Your task to perform on an android device: turn off sleep mode Image 0: 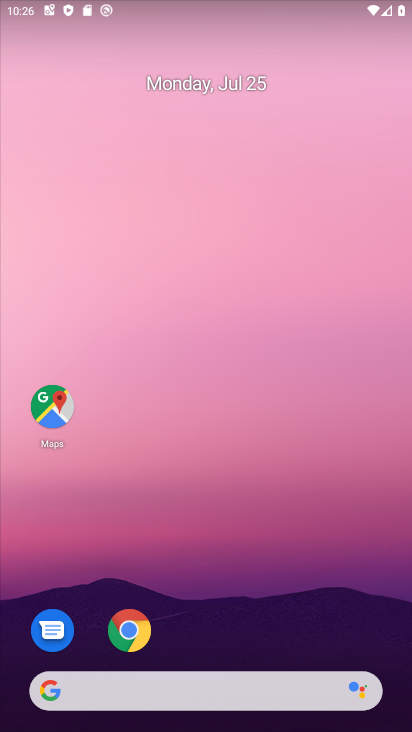
Step 0: drag from (345, 582) to (351, 84)
Your task to perform on an android device: turn off sleep mode Image 1: 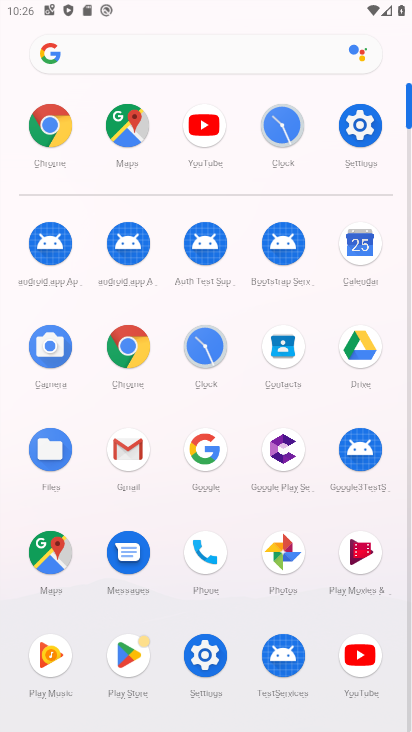
Step 1: click (361, 137)
Your task to perform on an android device: turn off sleep mode Image 2: 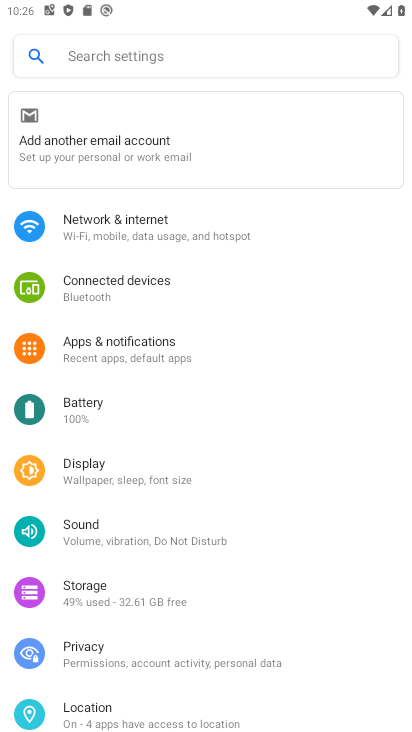
Step 2: drag from (336, 427) to (347, 332)
Your task to perform on an android device: turn off sleep mode Image 3: 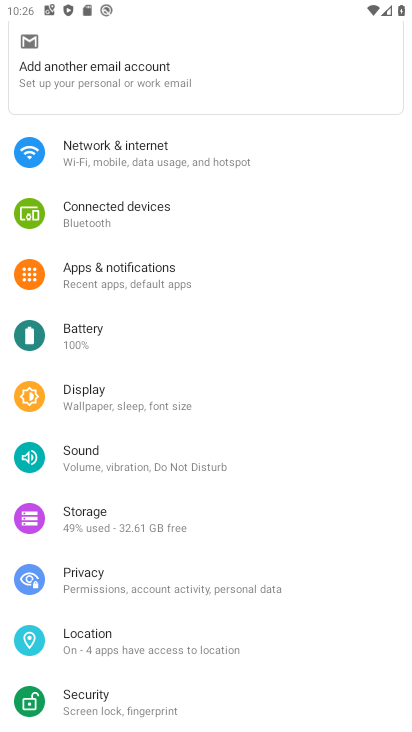
Step 3: drag from (350, 448) to (361, 368)
Your task to perform on an android device: turn off sleep mode Image 4: 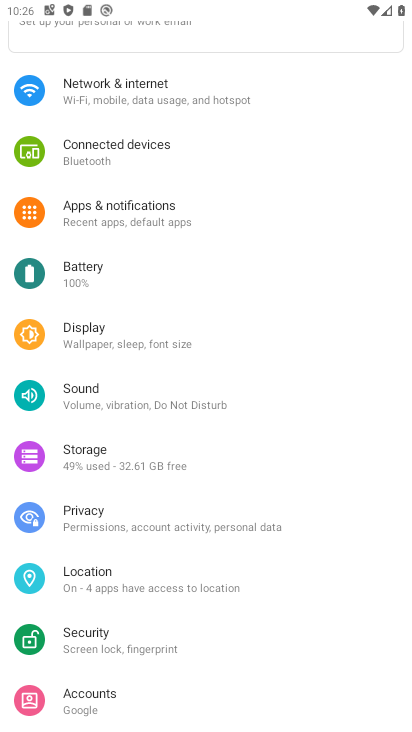
Step 4: drag from (357, 509) to (360, 388)
Your task to perform on an android device: turn off sleep mode Image 5: 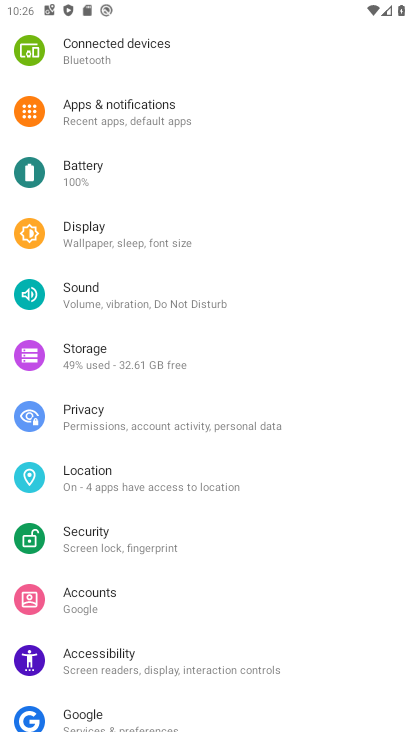
Step 5: drag from (346, 507) to (345, 395)
Your task to perform on an android device: turn off sleep mode Image 6: 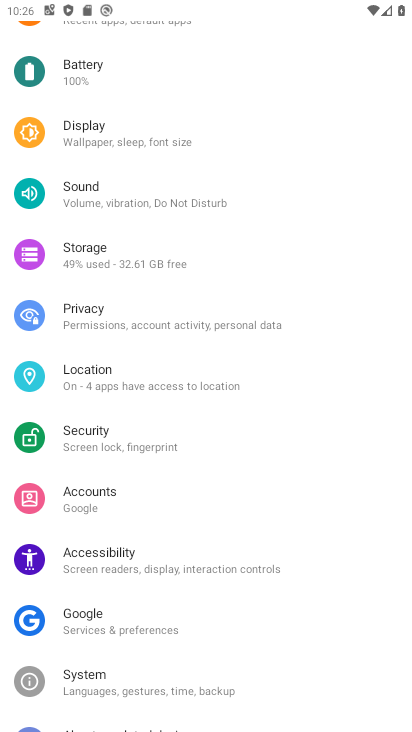
Step 6: drag from (335, 541) to (334, 424)
Your task to perform on an android device: turn off sleep mode Image 7: 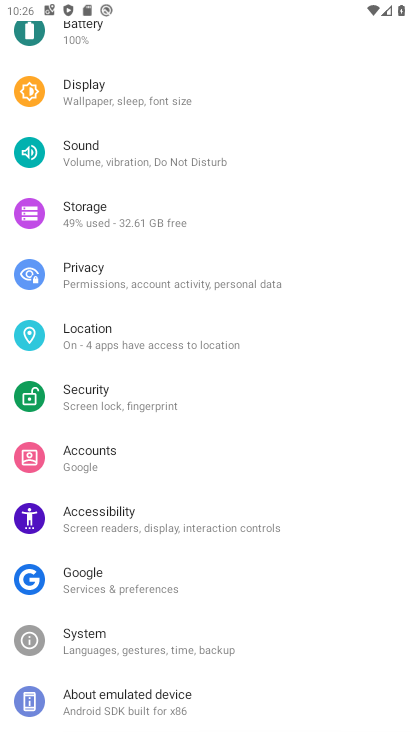
Step 7: drag from (342, 317) to (342, 409)
Your task to perform on an android device: turn off sleep mode Image 8: 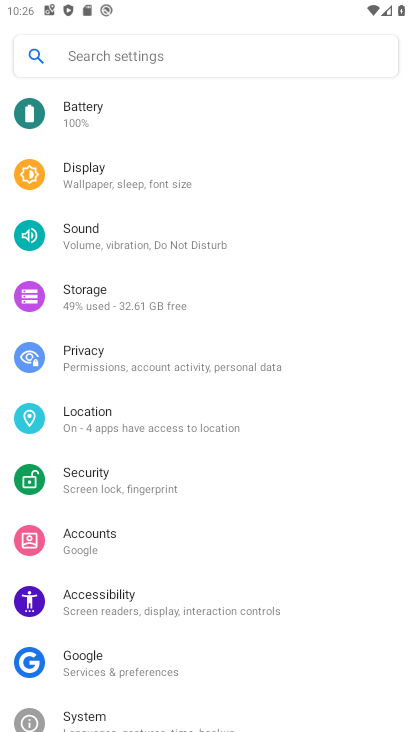
Step 8: drag from (336, 295) to (331, 402)
Your task to perform on an android device: turn off sleep mode Image 9: 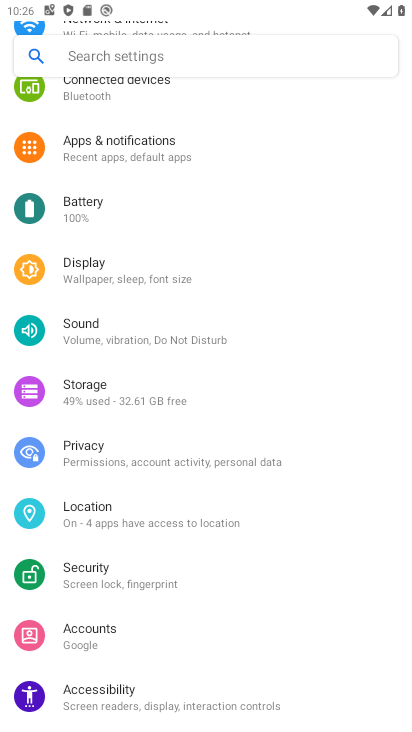
Step 9: drag from (335, 280) to (338, 382)
Your task to perform on an android device: turn off sleep mode Image 10: 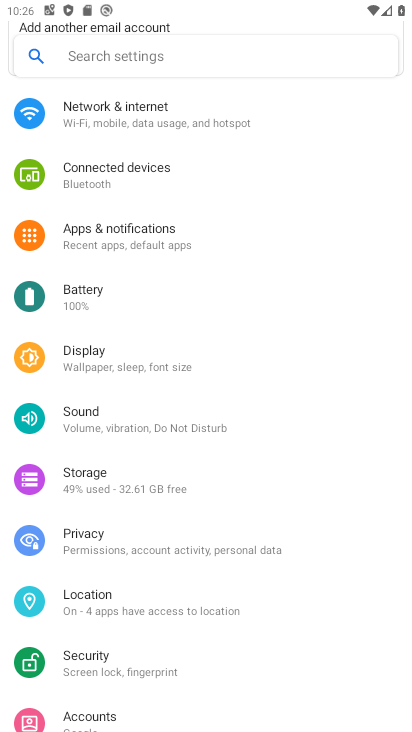
Step 10: drag from (338, 209) to (343, 445)
Your task to perform on an android device: turn off sleep mode Image 11: 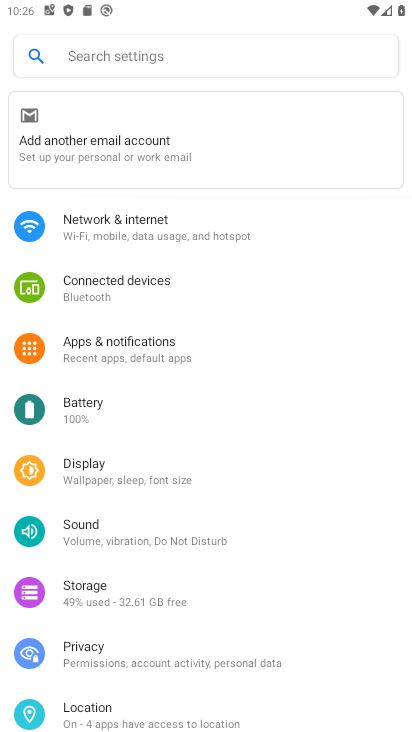
Step 11: click (245, 476)
Your task to perform on an android device: turn off sleep mode Image 12: 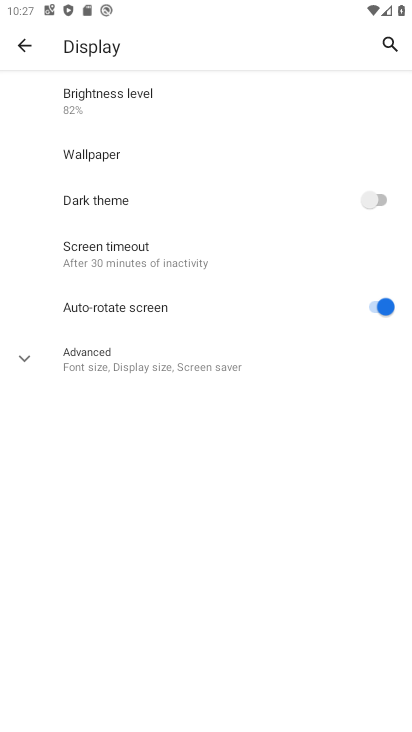
Step 12: click (179, 360)
Your task to perform on an android device: turn off sleep mode Image 13: 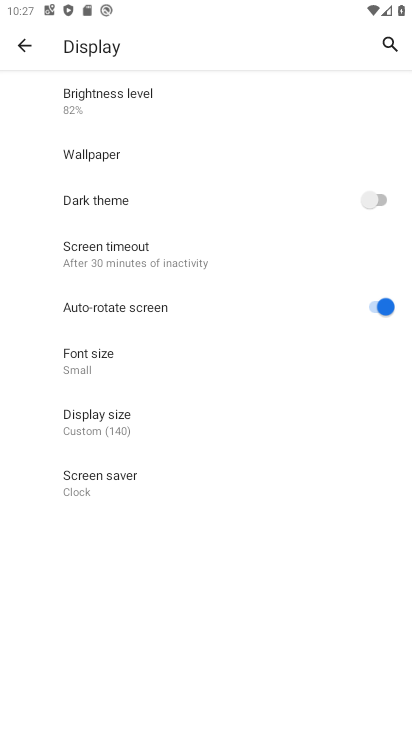
Step 13: task complete